Your task to perform on an android device: What's the weather going to be this weekend? Image 0: 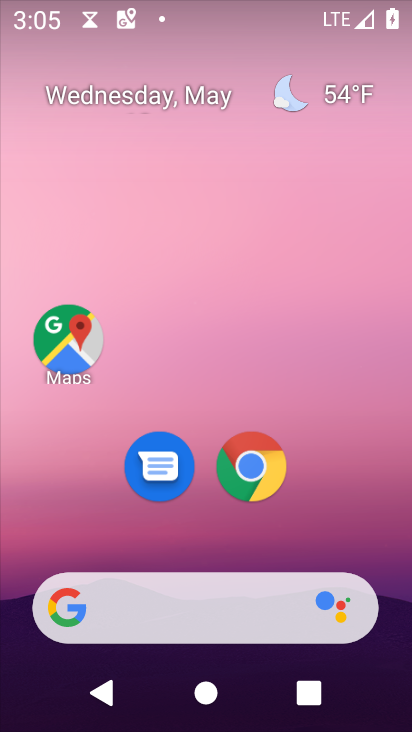
Step 0: click (268, 478)
Your task to perform on an android device: What's the weather going to be this weekend? Image 1: 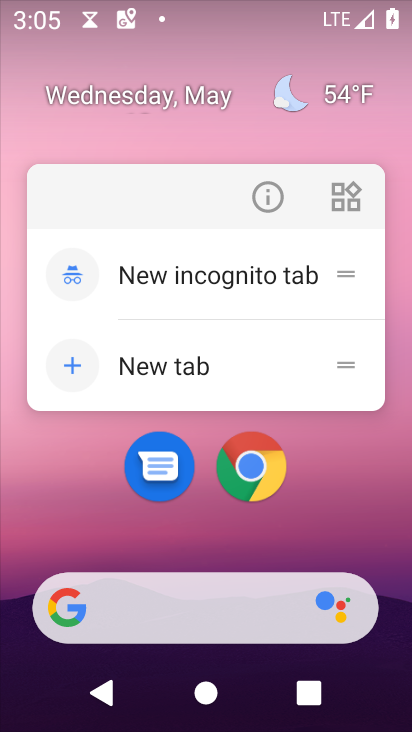
Step 1: click (354, 538)
Your task to perform on an android device: What's the weather going to be this weekend? Image 2: 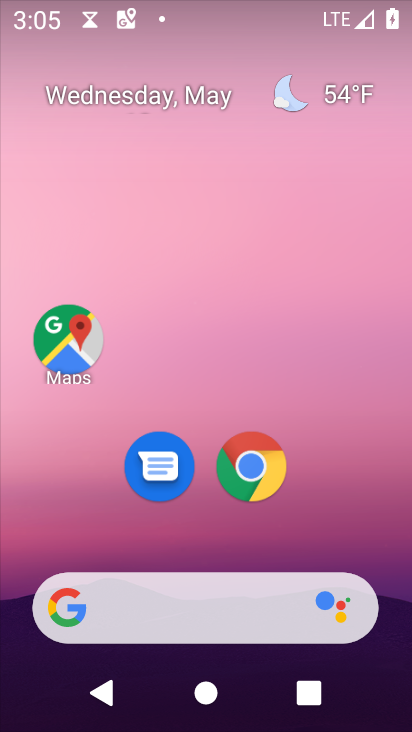
Step 2: click (257, 481)
Your task to perform on an android device: What's the weather going to be this weekend? Image 3: 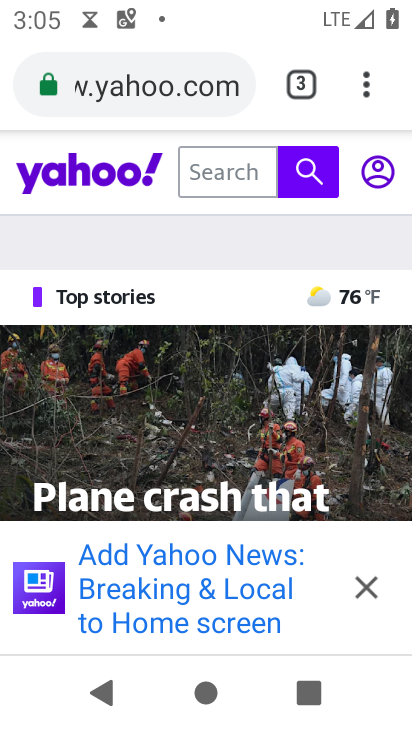
Step 3: click (172, 77)
Your task to perform on an android device: What's the weather going to be this weekend? Image 4: 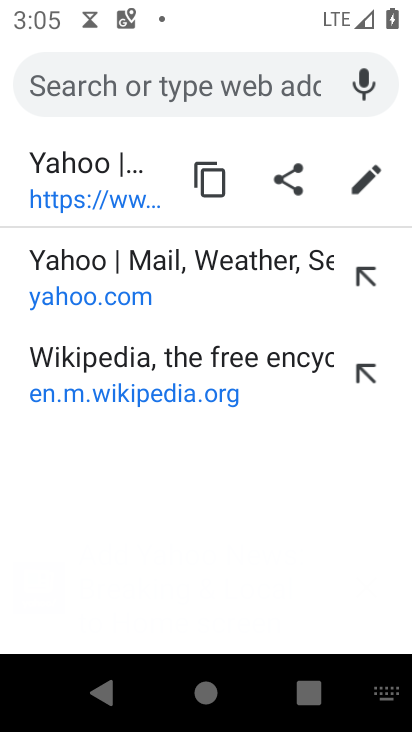
Step 4: type "What's the weather going to be this weekend?"
Your task to perform on an android device: What's the weather going to be this weekend? Image 5: 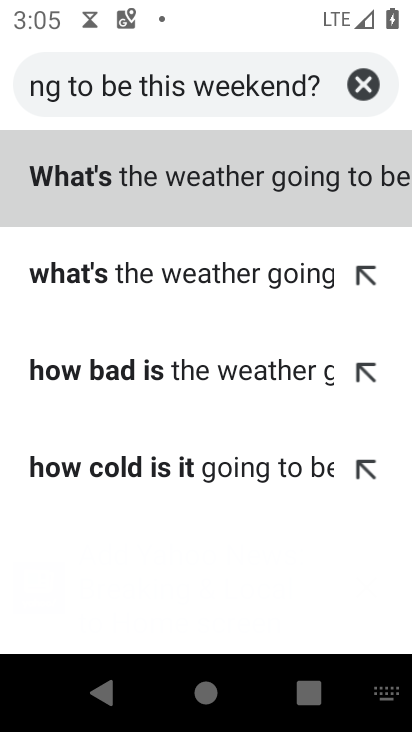
Step 5: click (129, 196)
Your task to perform on an android device: What's the weather going to be this weekend? Image 6: 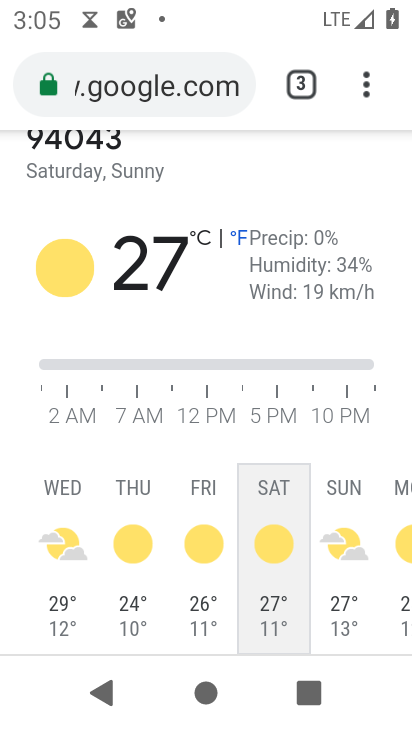
Step 6: task complete